Your task to perform on an android device: Do I have any events this weekend? Image 0: 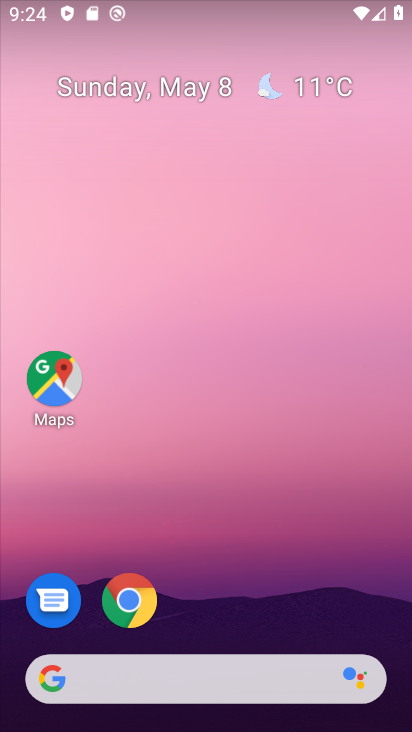
Step 0: drag from (274, 561) to (194, 3)
Your task to perform on an android device: Do I have any events this weekend? Image 1: 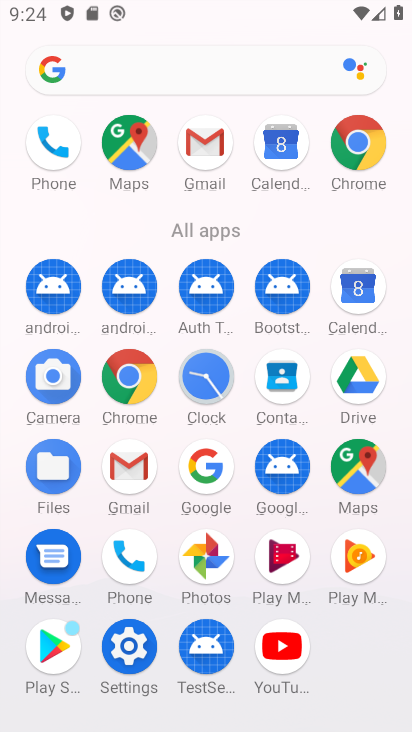
Step 1: drag from (1, 595) to (1, 387)
Your task to perform on an android device: Do I have any events this weekend? Image 2: 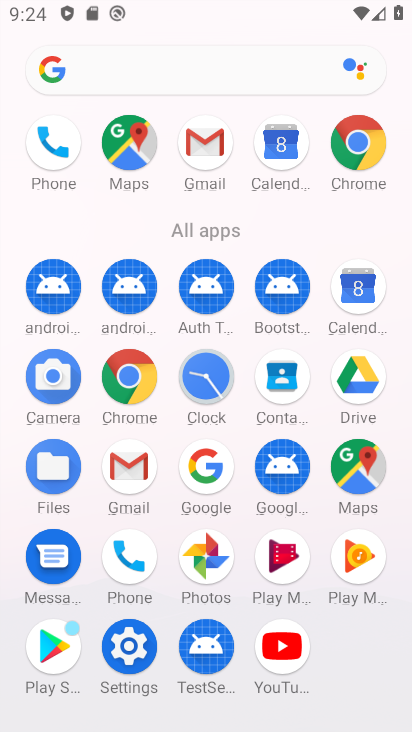
Step 2: click (362, 284)
Your task to perform on an android device: Do I have any events this weekend? Image 3: 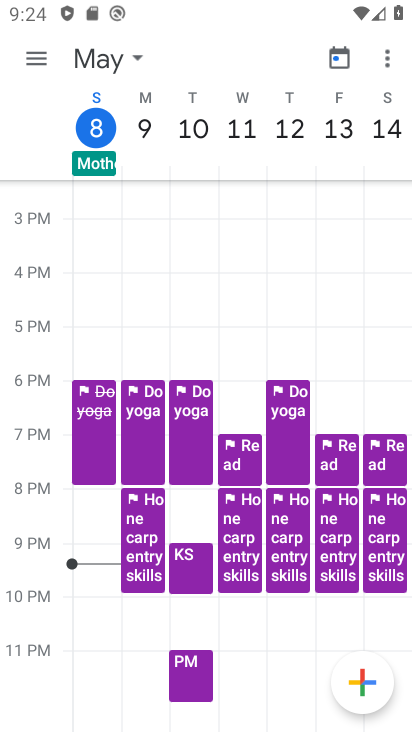
Step 3: click (41, 55)
Your task to perform on an android device: Do I have any events this weekend? Image 4: 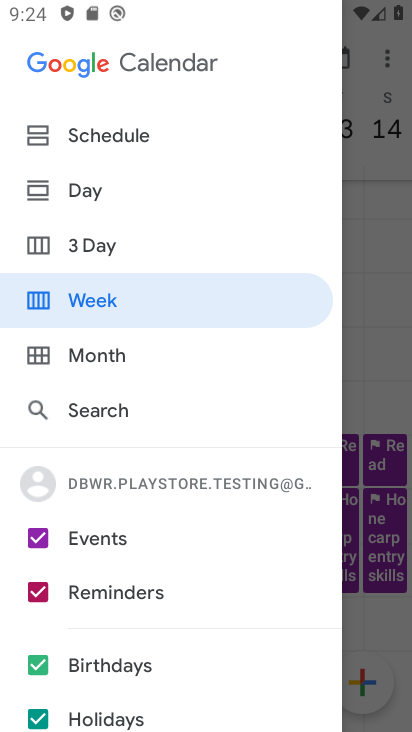
Step 4: click (96, 288)
Your task to perform on an android device: Do I have any events this weekend? Image 5: 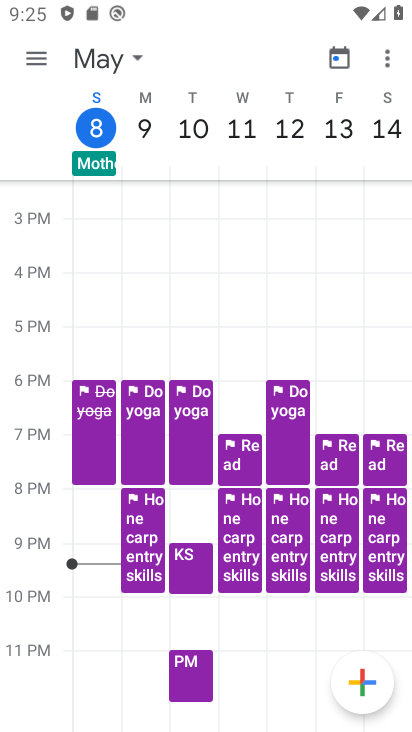
Step 5: click (385, 130)
Your task to perform on an android device: Do I have any events this weekend? Image 6: 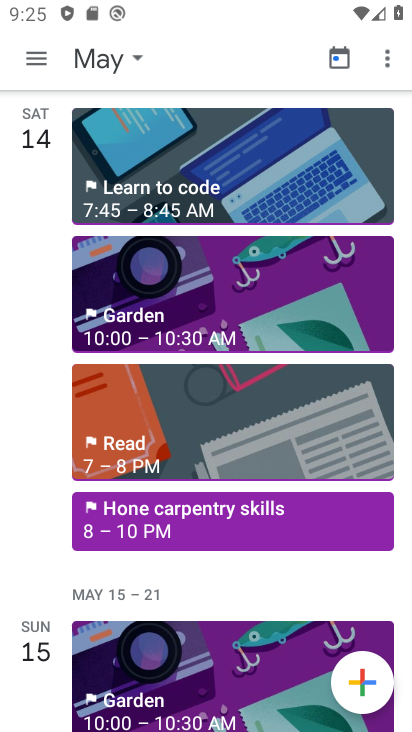
Step 6: task complete